Your task to perform on an android device: all mails in gmail Image 0: 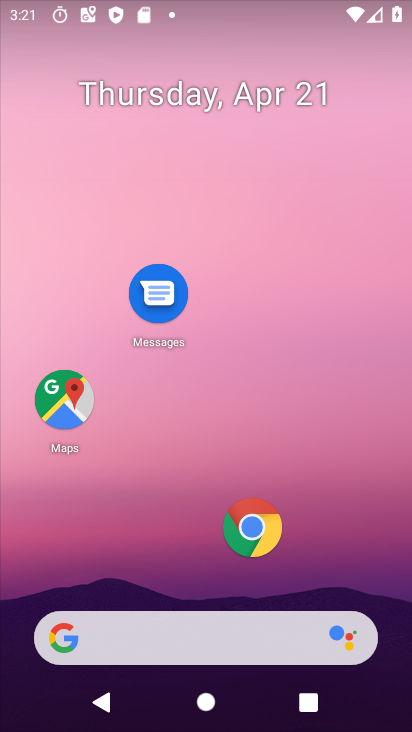
Step 0: drag from (203, 613) to (251, 320)
Your task to perform on an android device: all mails in gmail Image 1: 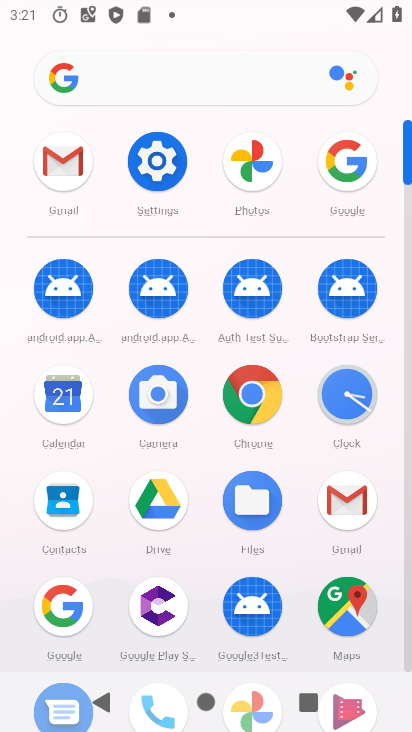
Step 1: click (60, 167)
Your task to perform on an android device: all mails in gmail Image 2: 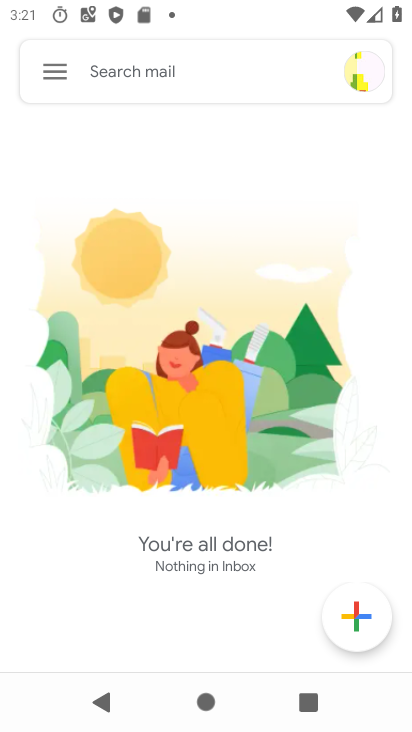
Step 2: click (46, 71)
Your task to perform on an android device: all mails in gmail Image 3: 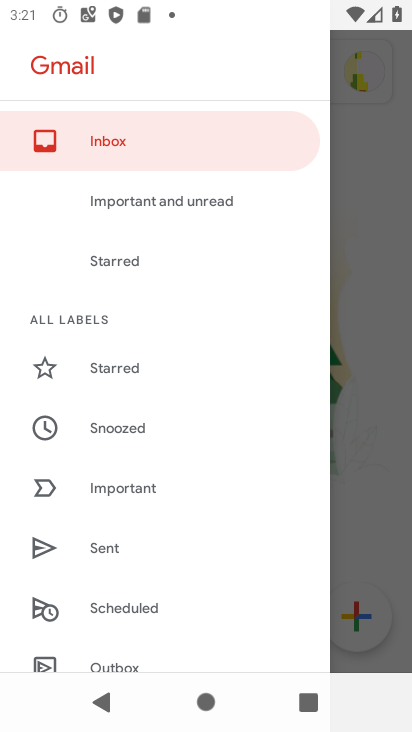
Step 3: drag from (131, 559) to (131, 317)
Your task to perform on an android device: all mails in gmail Image 4: 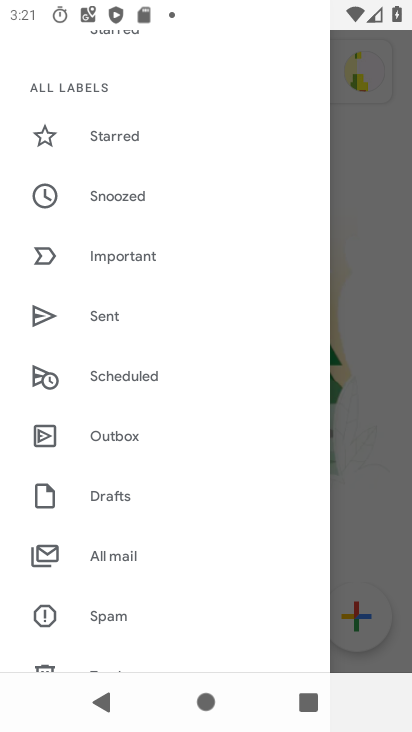
Step 4: click (118, 561)
Your task to perform on an android device: all mails in gmail Image 5: 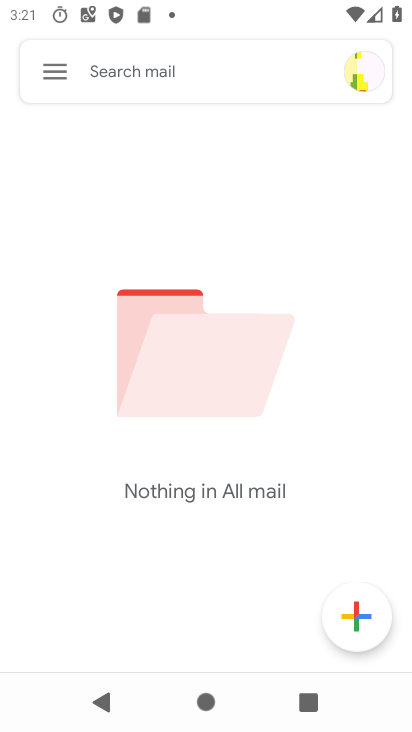
Step 5: task complete